Your task to perform on an android device: What's the news in Paraguay? Image 0: 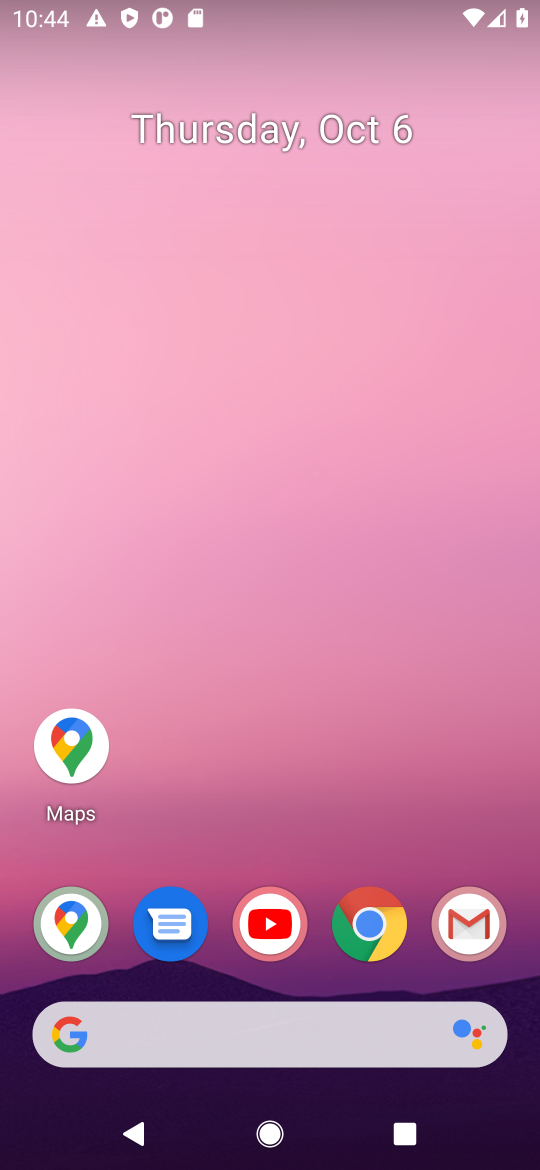
Step 0: click (363, 918)
Your task to perform on an android device: What's the news in Paraguay? Image 1: 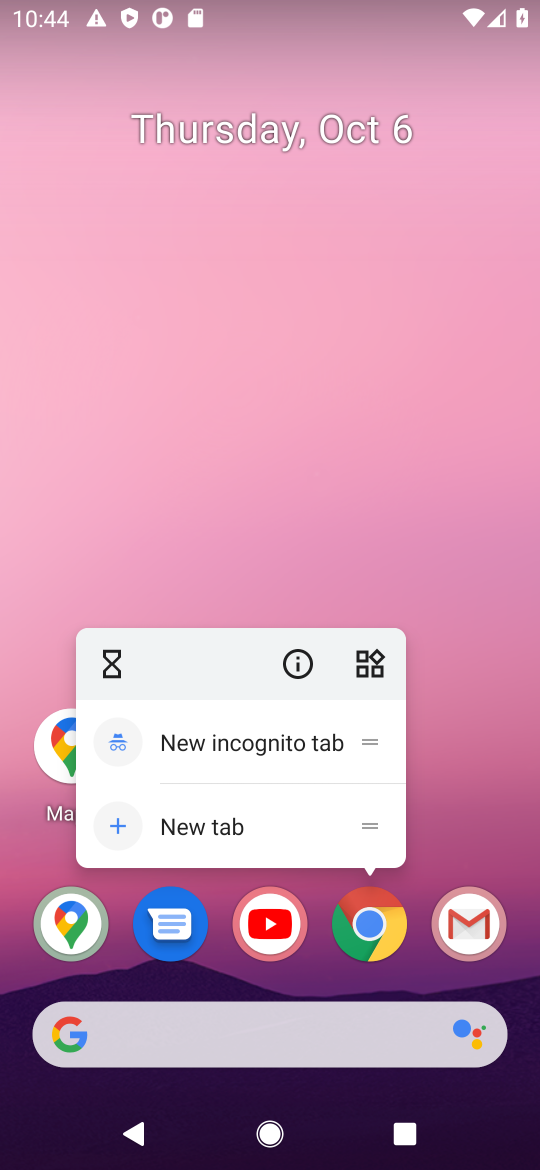
Step 1: click (372, 932)
Your task to perform on an android device: What's the news in Paraguay? Image 2: 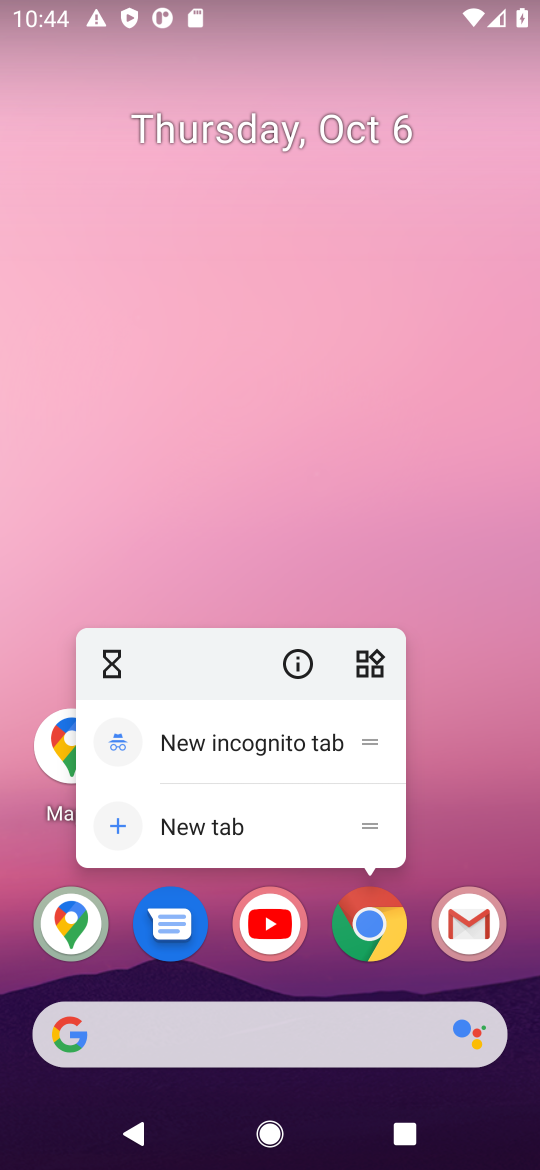
Step 2: click (374, 915)
Your task to perform on an android device: What's the news in Paraguay? Image 3: 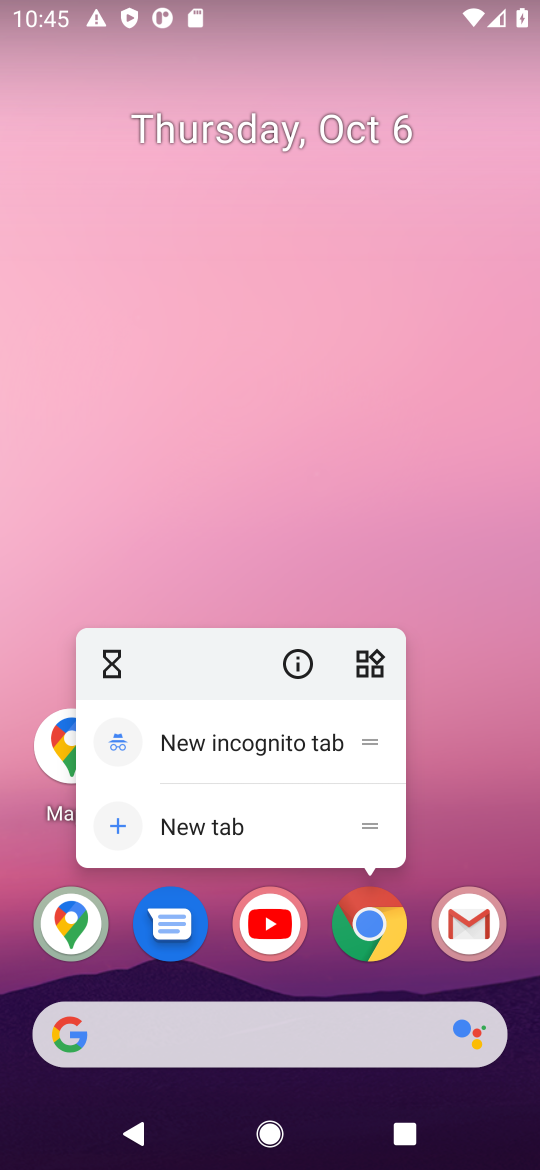
Step 3: click (374, 915)
Your task to perform on an android device: What's the news in Paraguay? Image 4: 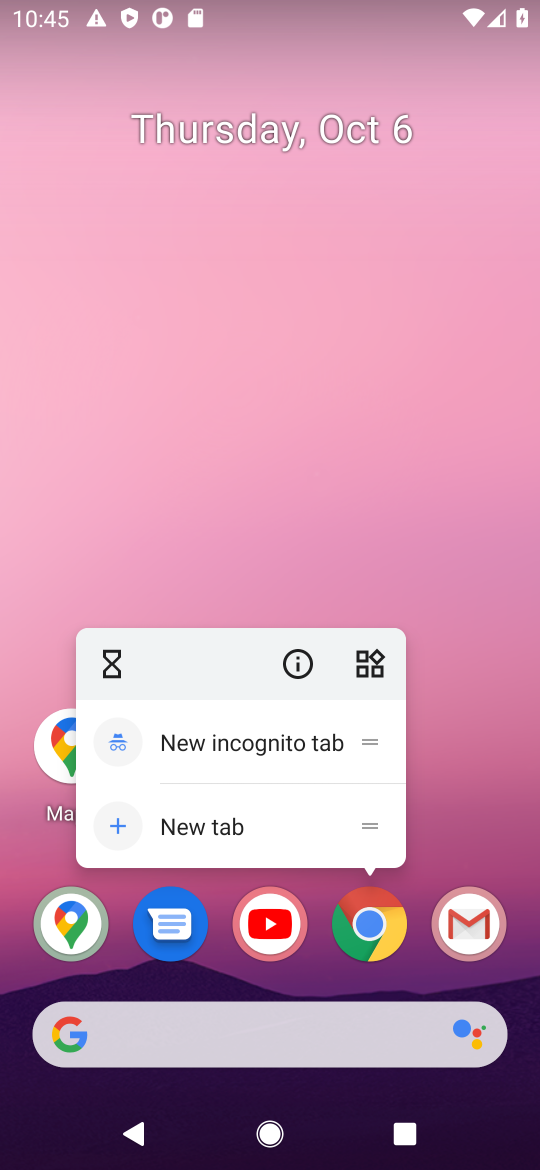
Step 4: click (374, 915)
Your task to perform on an android device: What's the news in Paraguay? Image 5: 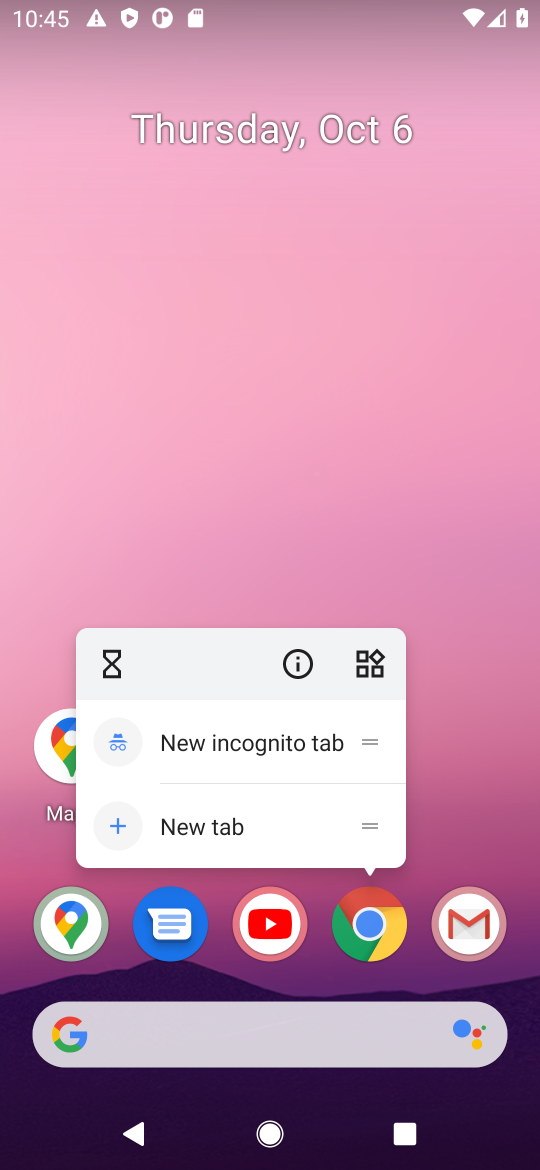
Step 5: click (366, 925)
Your task to perform on an android device: What's the news in Paraguay? Image 6: 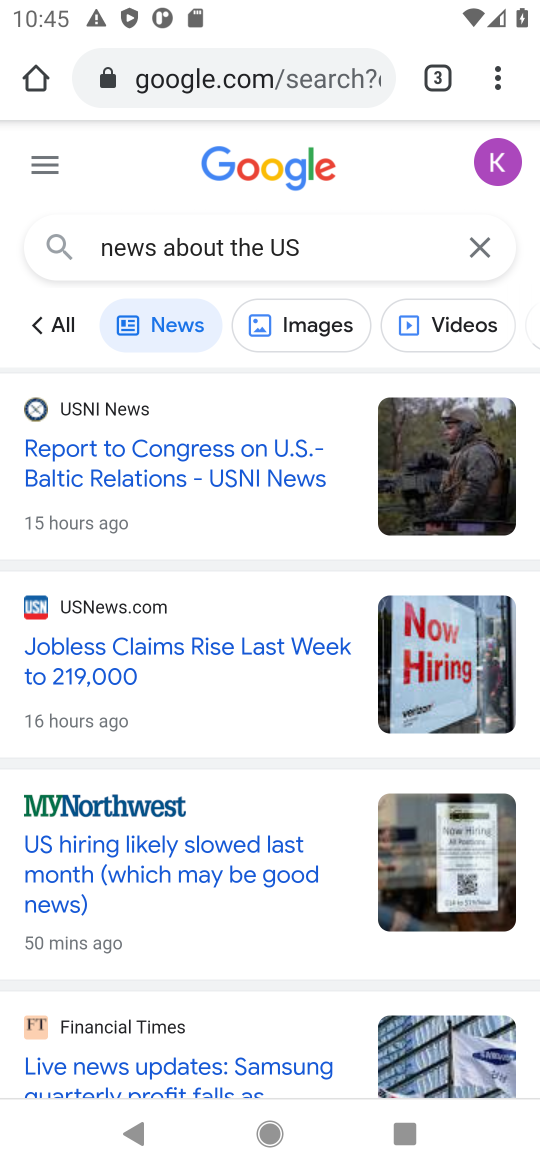
Step 6: click (332, 79)
Your task to perform on an android device: What's the news in Paraguay? Image 7: 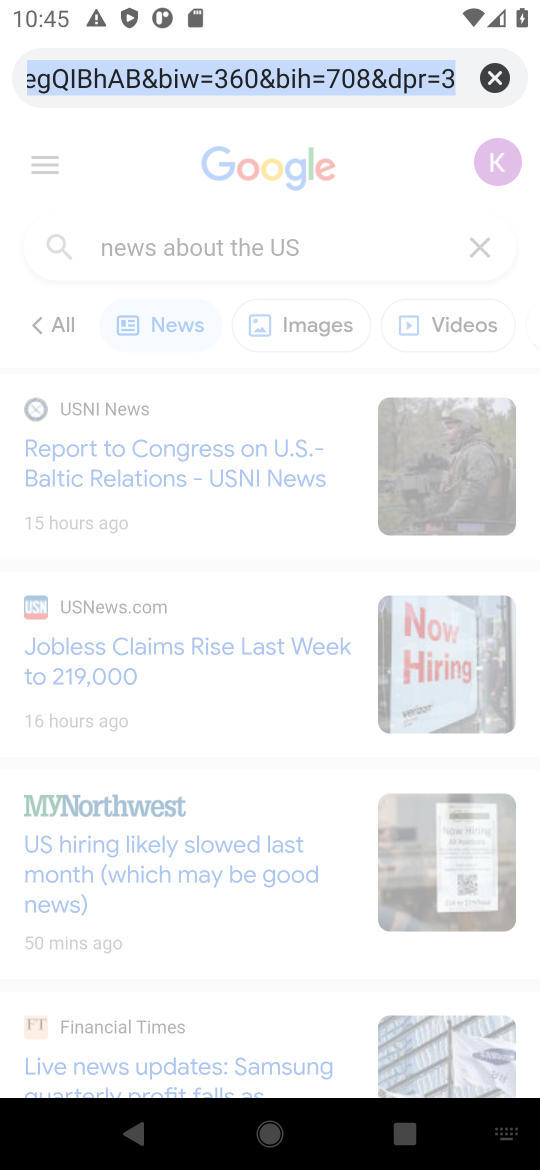
Step 7: click (493, 76)
Your task to perform on an android device: What's the news in Paraguay? Image 8: 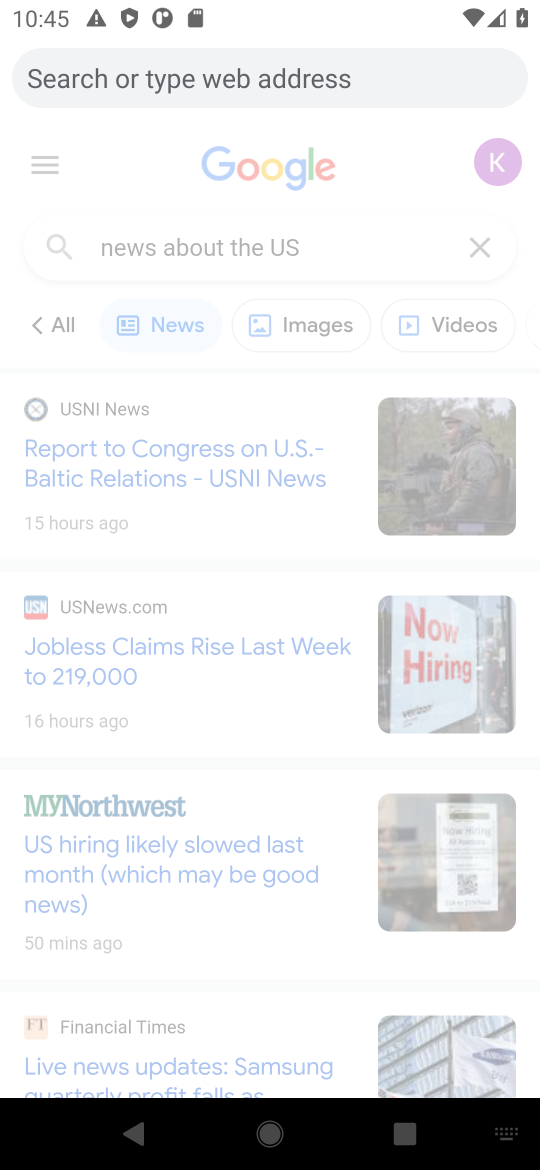
Step 8: type "news in Paraguay"
Your task to perform on an android device: What's the news in Paraguay? Image 9: 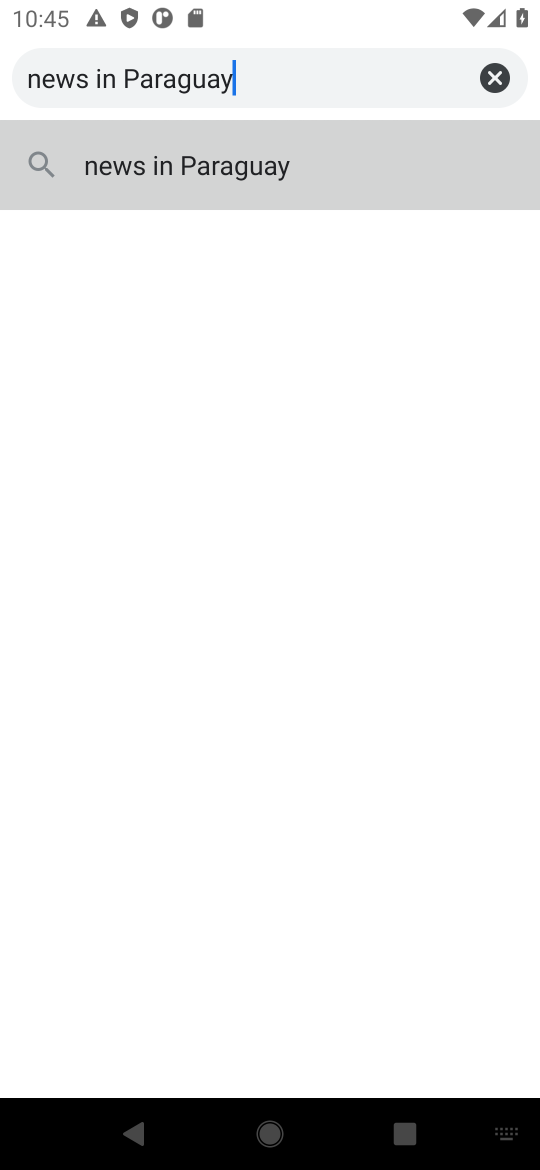
Step 9: click (225, 157)
Your task to perform on an android device: What's the news in Paraguay? Image 10: 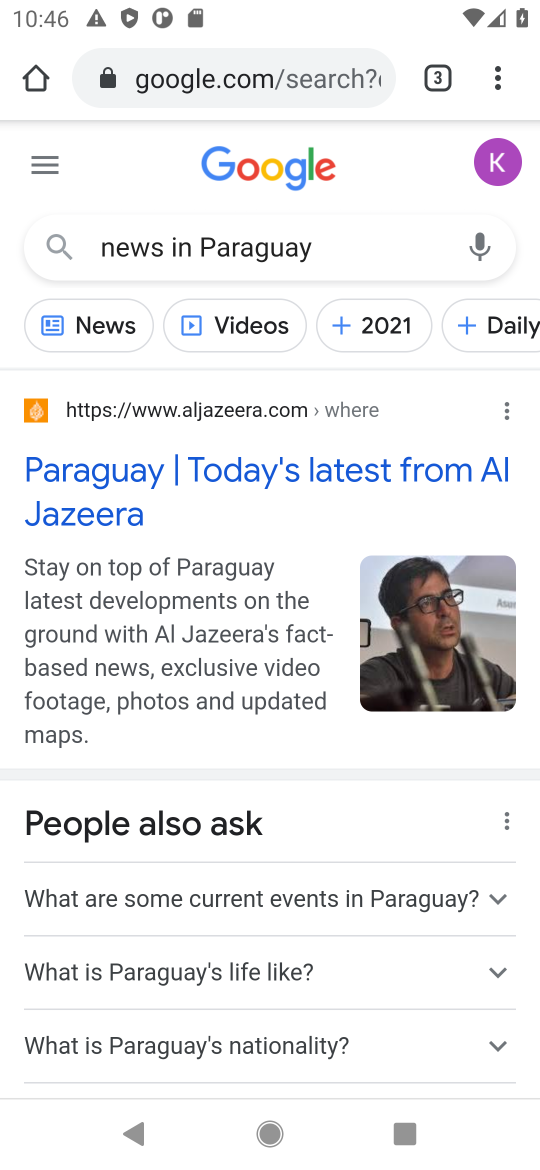
Step 10: click (107, 320)
Your task to perform on an android device: What's the news in Paraguay? Image 11: 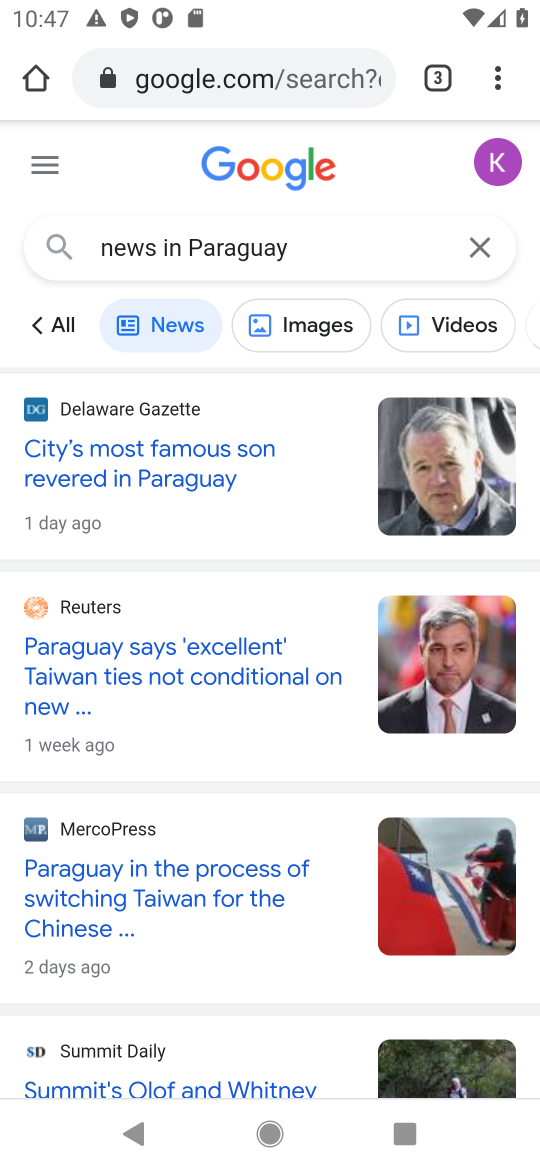
Step 11: task complete